Your task to perform on an android device: Check the weather Image 0: 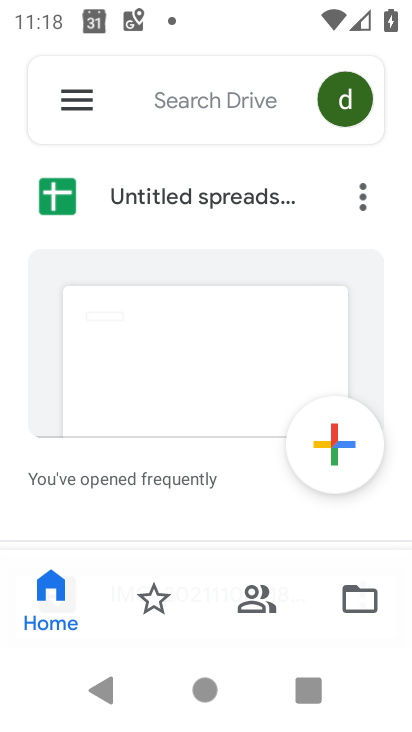
Step 0: press home button
Your task to perform on an android device: Check the weather Image 1: 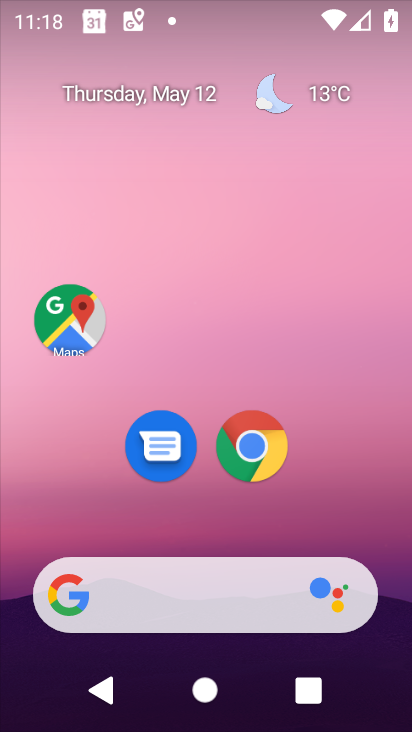
Step 1: drag from (250, 547) to (302, 3)
Your task to perform on an android device: Check the weather Image 2: 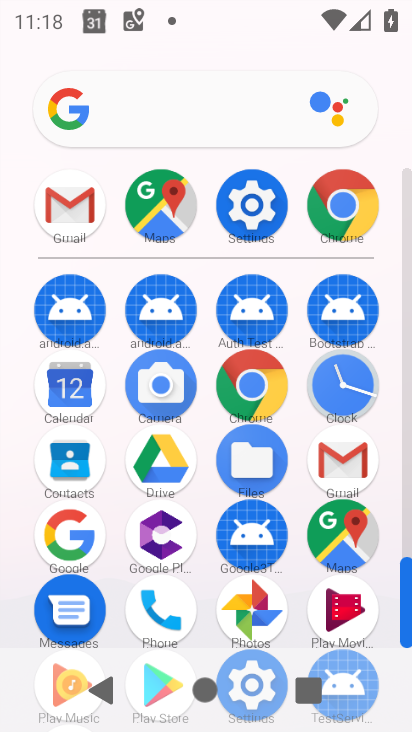
Step 2: click (262, 402)
Your task to perform on an android device: Check the weather Image 3: 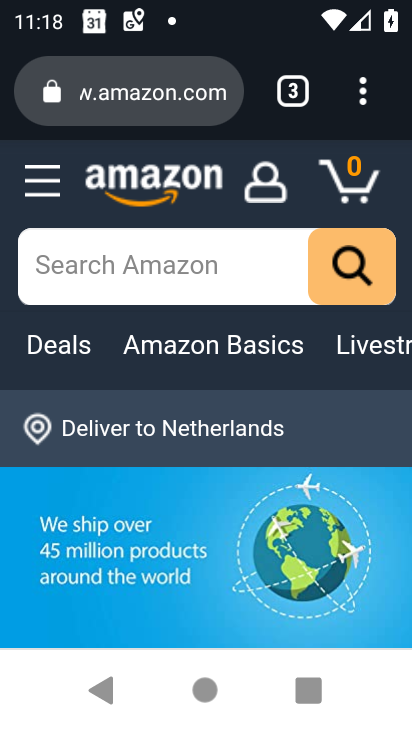
Step 3: click (122, 106)
Your task to perform on an android device: Check the weather Image 4: 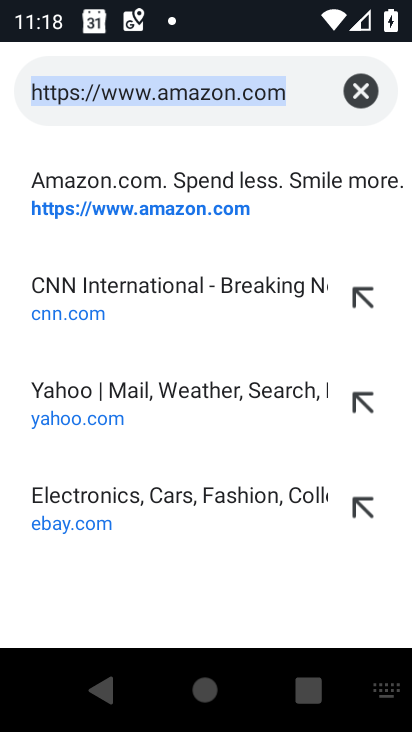
Step 4: click (367, 90)
Your task to perform on an android device: Check the weather Image 5: 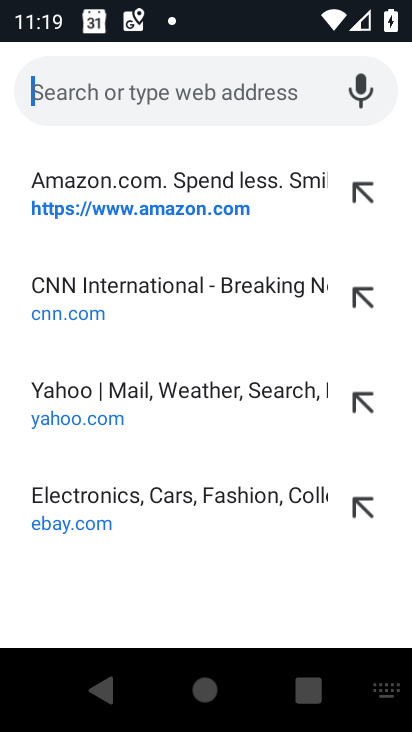
Step 5: type "check the weather"
Your task to perform on an android device: Check the weather Image 6: 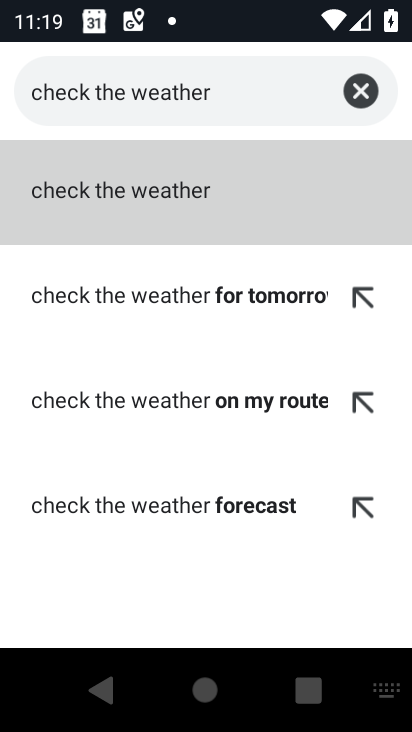
Step 6: click (253, 210)
Your task to perform on an android device: Check the weather Image 7: 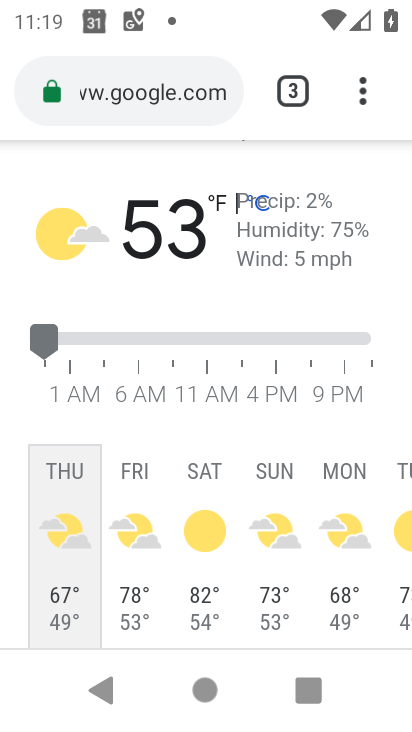
Step 7: task complete